Your task to perform on an android device: check out phone information Image 0: 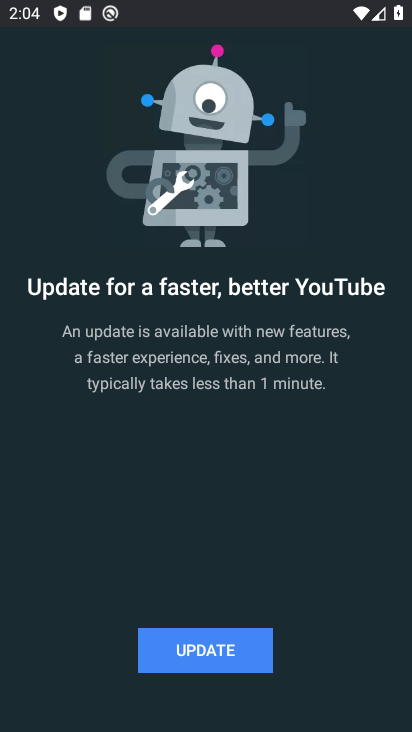
Step 0: press home button
Your task to perform on an android device: check out phone information Image 1: 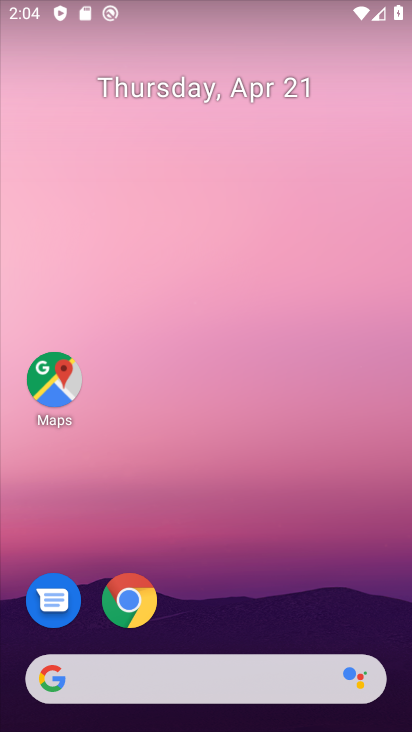
Step 1: drag from (262, 609) to (282, 162)
Your task to perform on an android device: check out phone information Image 2: 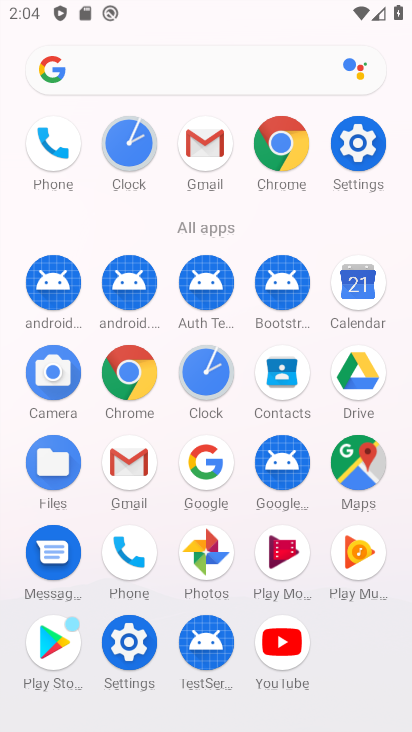
Step 2: click (58, 147)
Your task to perform on an android device: check out phone information Image 3: 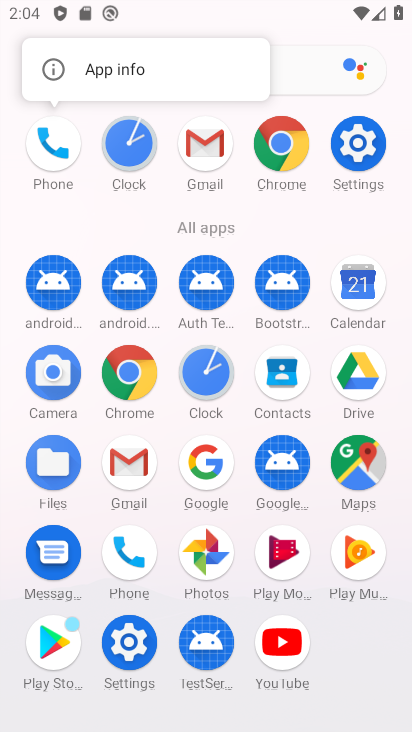
Step 3: click (139, 75)
Your task to perform on an android device: check out phone information Image 4: 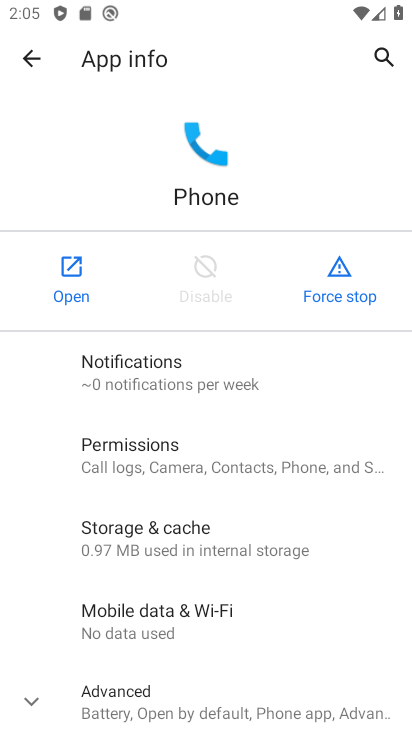
Step 4: task complete